Your task to perform on an android device: read, delete, or share a saved page in the chrome app Image 0: 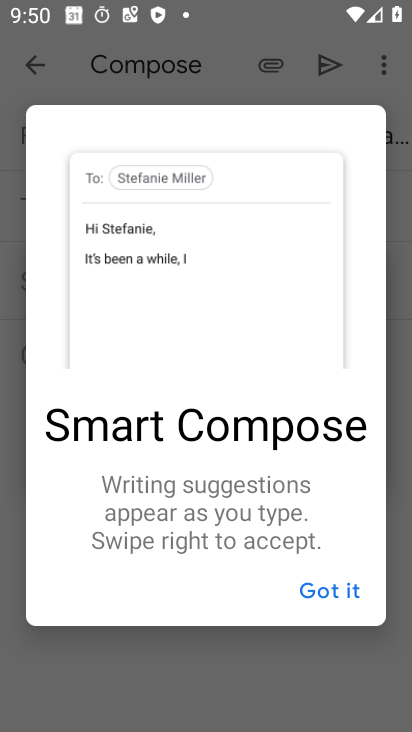
Step 0: press home button
Your task to perform on an android device: read, delete, or share a saved page in the chrome app Image 1: 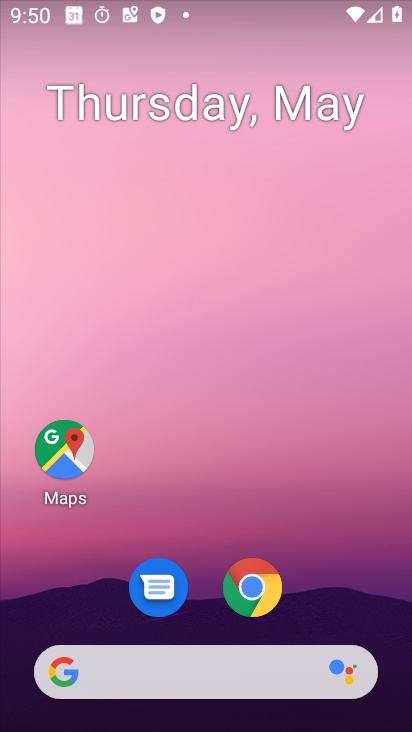
Step 1: click (247, 596)
Your task to perform on an android device: read, delete, or share a saved page in the chrome app Image 2: 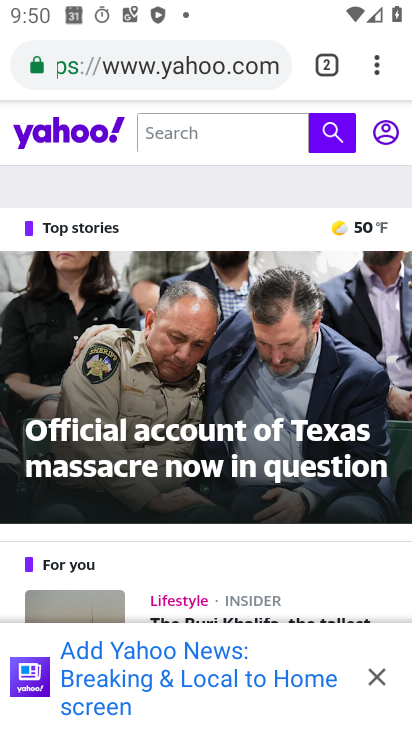
Step 2: click (376, 71)
Your task to perform on an android device: read, delete, or share a saved page in the chrome app Image 3: 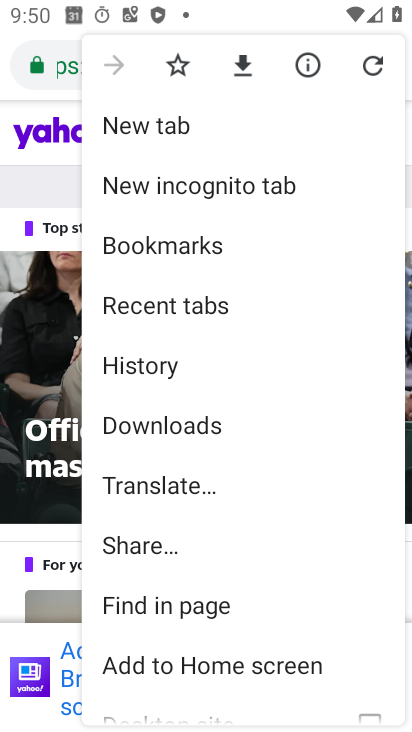
Step 3: click (122, 421)
Your task to perform on an android device: read, delete, or share a saved page in the chrome app Image 4: 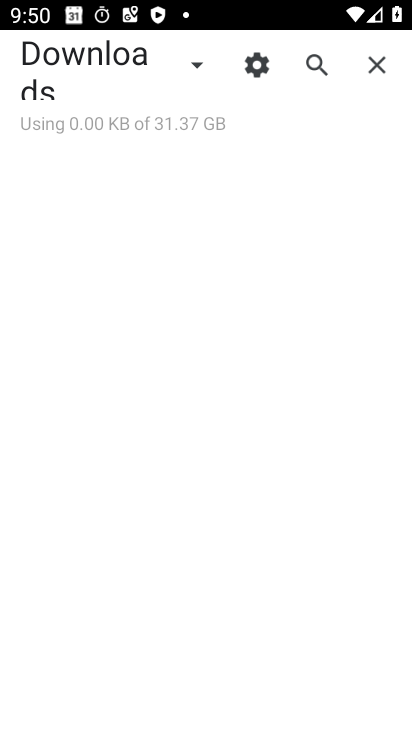
Step 4: click (201, 66)
Your task to perform on an android device: read, delete, or share a saved page in the chrome app Image 5: 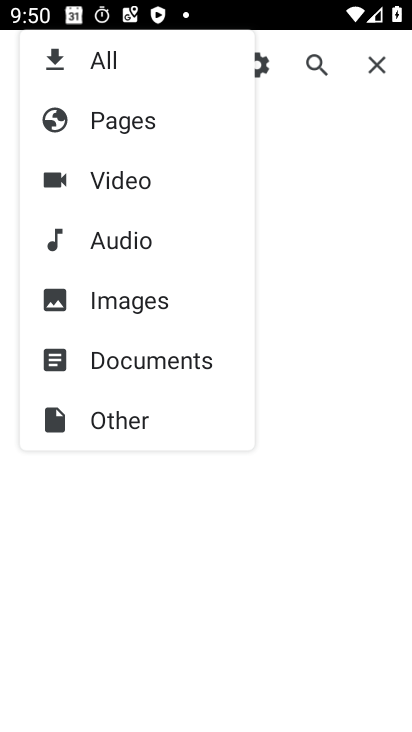
Step 5: click (134, 131)
Your task to perform on an android device: read, delete, or share a saved page in the chrome app Image 6: 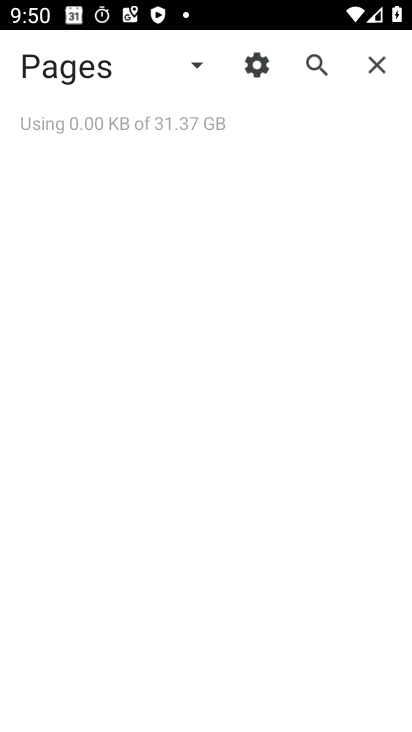
Step 6: task complete